Your task to perform on an android device: Open Chrome and go to settings Image 0: 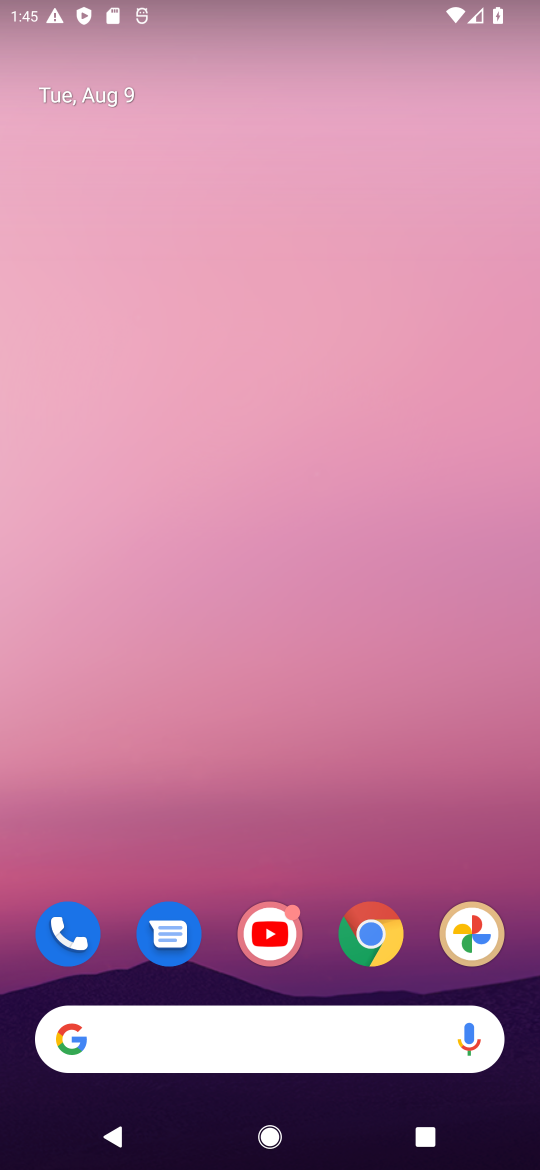
Step 0: click (389, 927)
Your task to perform on an android device: Open Chrome and go to settings Image 1: 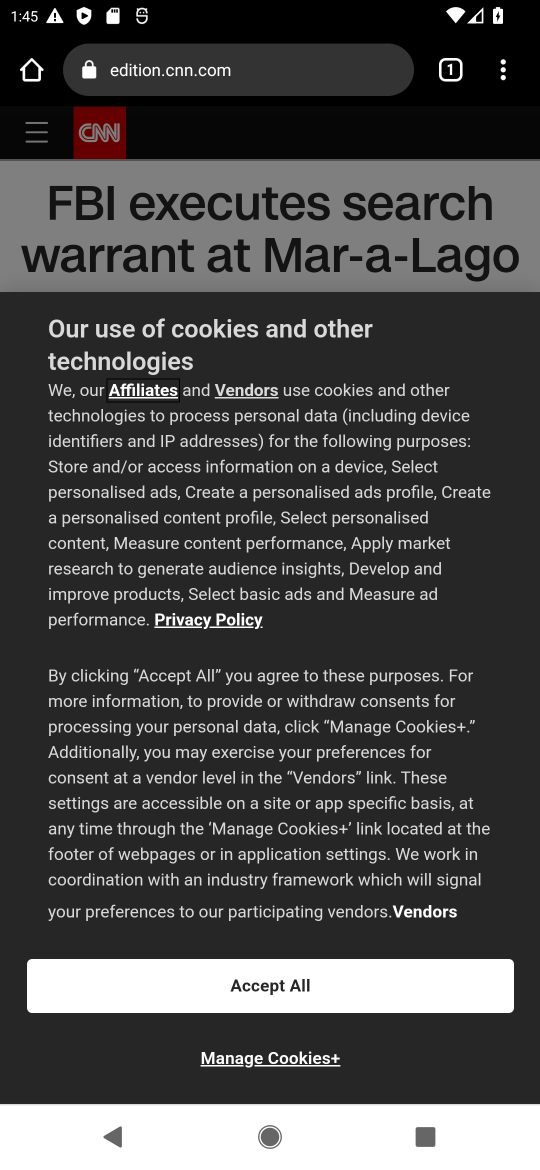
Step 1: click (491, 81)
Your task to perform on an android device: Open Chrome and go to settings Image 2: 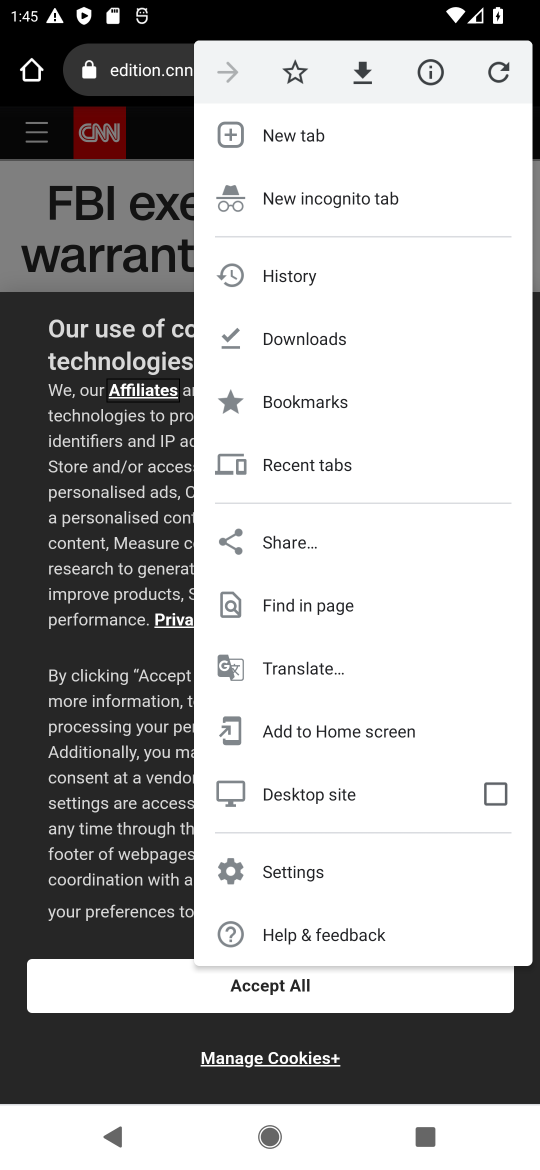
Step 2: click (301, 884)
Your task to perform on an android device: Open Chrome and go to settings Image 3: 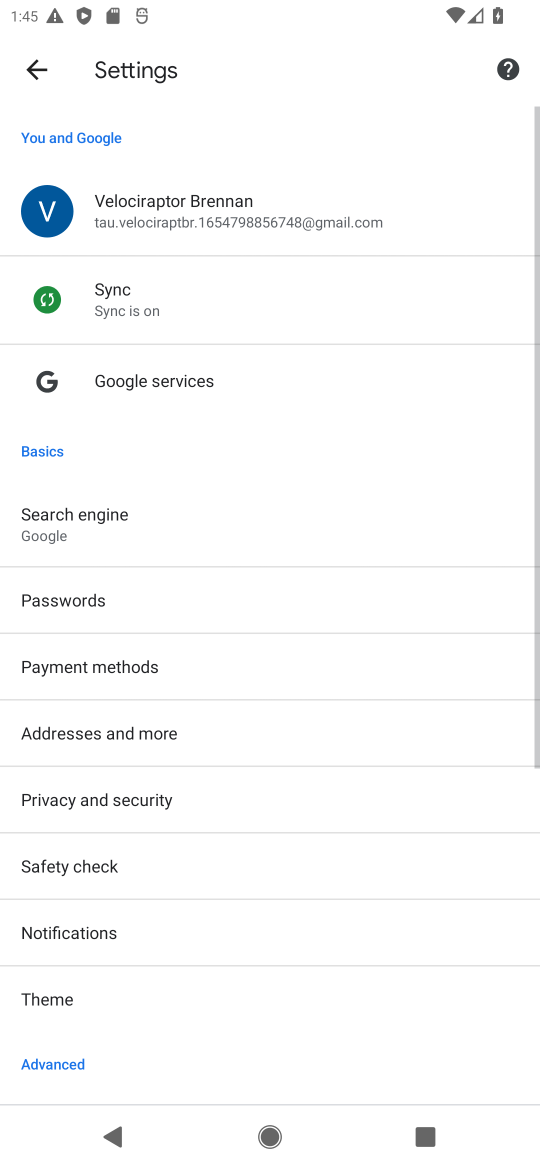
Step 3: task complete